Your task to perform on an android device: all mails in gmail Image 0: 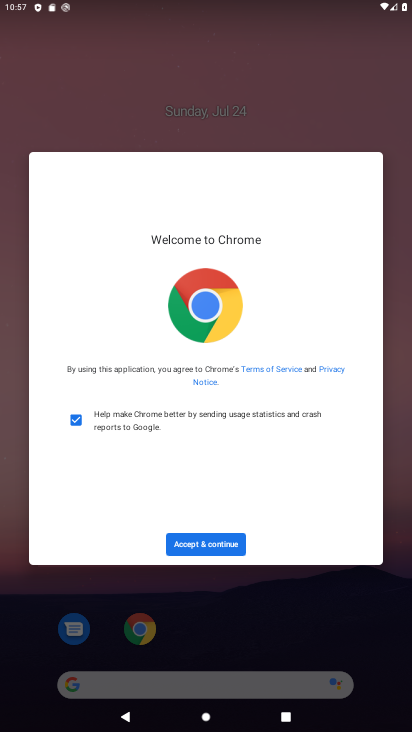
Step 0: press home button
Your task to perform on an android device: all mails in gmail Image 1: 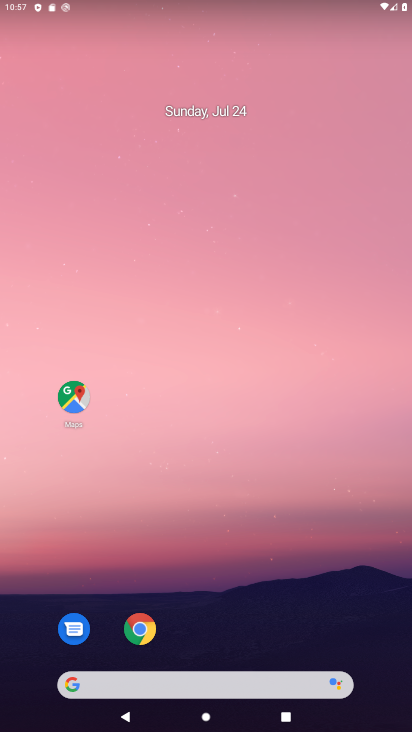
Step 1: drag from (211, 603) to (234, 94)
Your task to perform on an android device: all mails in gmail Image 2: 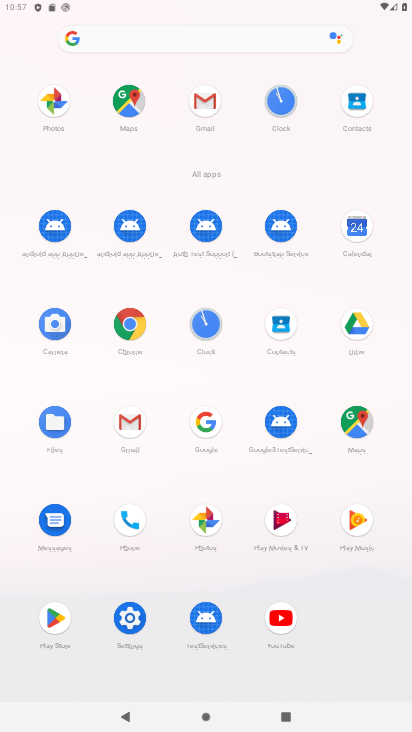
Step 2: click (205, 99)
Your task to perform on an android device: all mails in gmail Image 3: 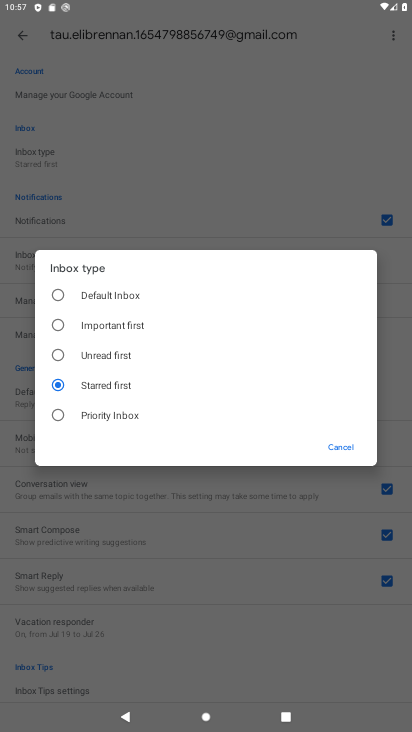
Step 3: press back button
Your task to perform on an android device: all mails in gmail Image 4: 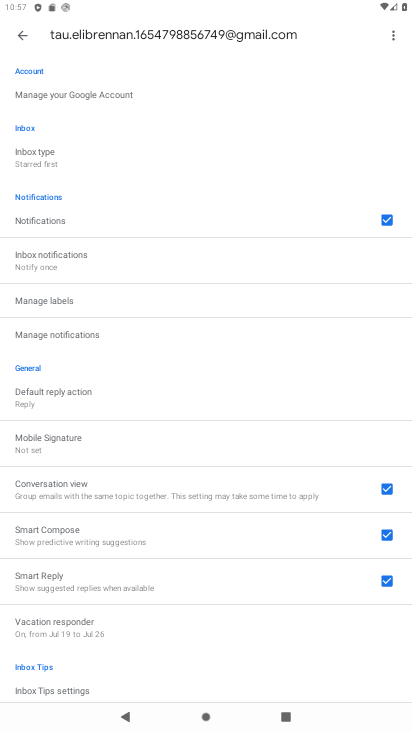
Step 4: press back button
Your task to perform on an android device: all mails in gmail Image 5: 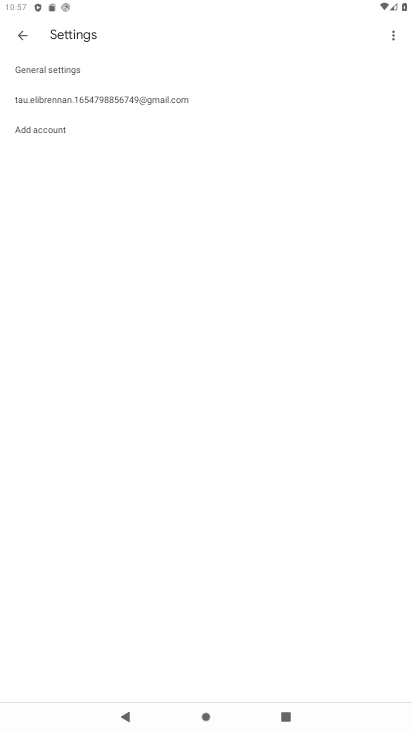
Step 5: click (35, 36)
Your task to perform on an android device: all mails in gmail Image 6: 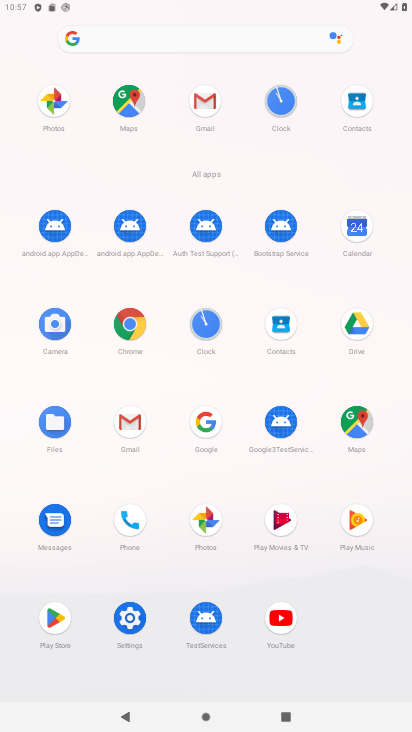
Step 6: click (201, 94)
Your task to perform on an android device: all mails in gmail Image 7: 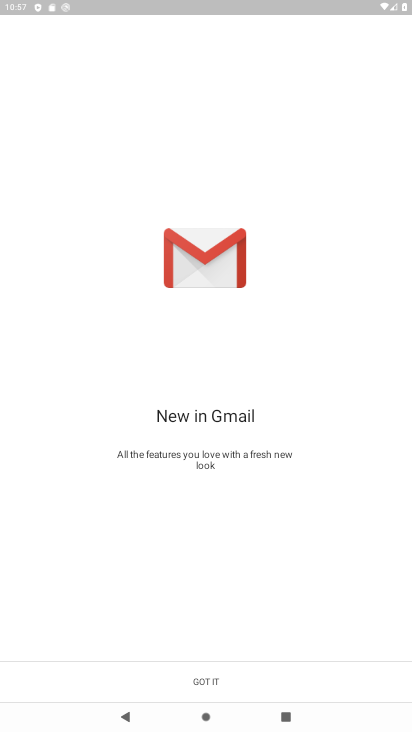
Step 7: click (233, 663)
Your task to perform on an android device: all mails in gmail Image 8: 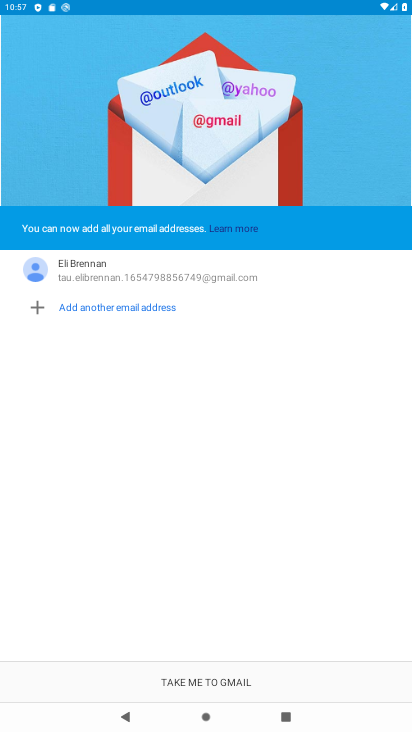
Step 8: click (127, 291)
Your task to perform on an android device: all mails in gmail Image 9: 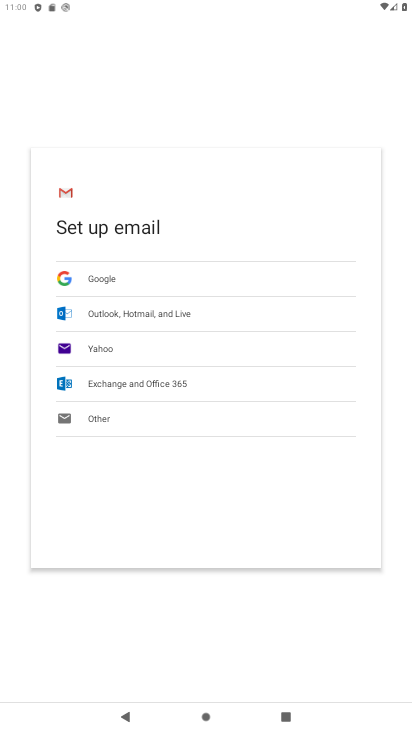
Step 9: press home button
Your task to perform on an android device: all mails in gmail Image 10: 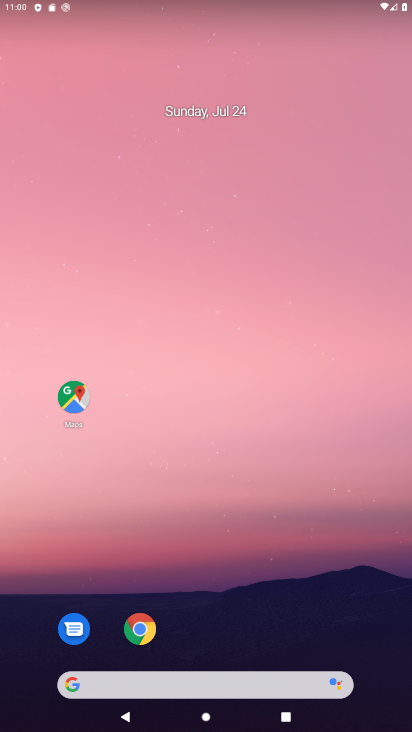
Step 10: drag from (199, 640) to (214, 24)
Your task to perform on an android device: all mails in gmail Image 11: 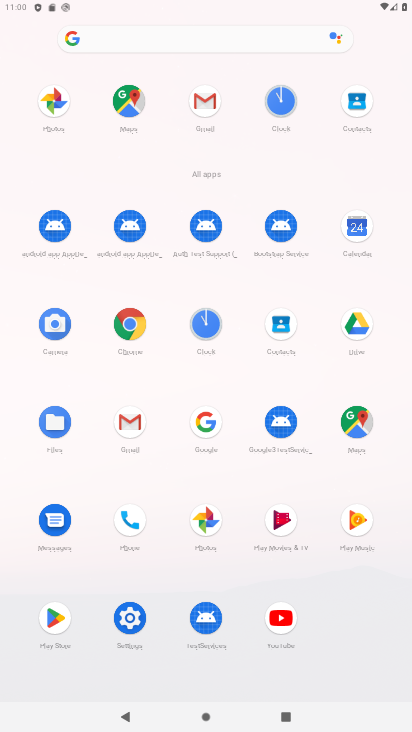
Step 11: click (206, 109)
Your task to perform on an android device: all mails in gmail Image 12: 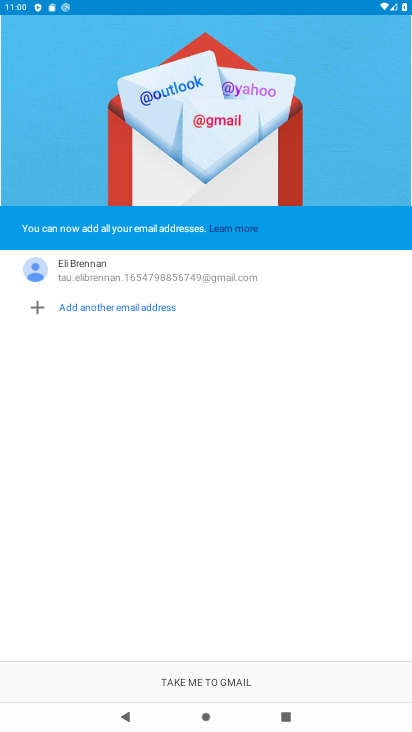
Step 12: click (263, 689)
Your task to perform on an android device: all mails in gmail Image 13: 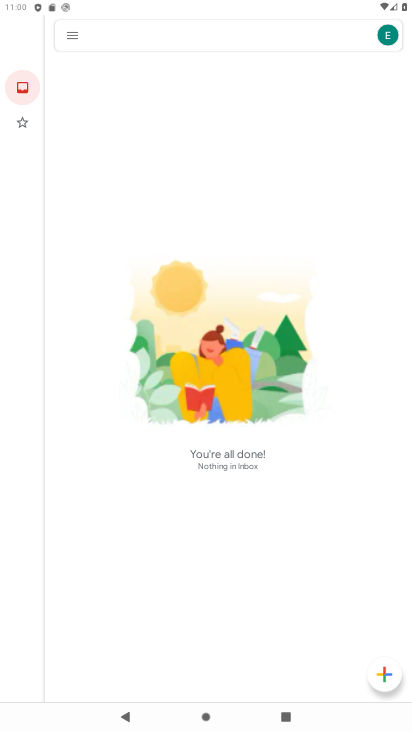
Step 13: click (68, 44)
Your task to perform on an android device: all mails in gmail Image 14: 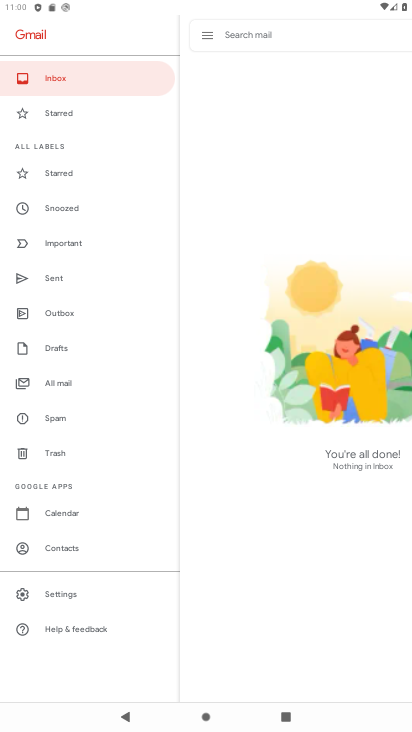
Step 14: click (70, 384)
Your task to perform on an android device: all mails in gmail Image 15: 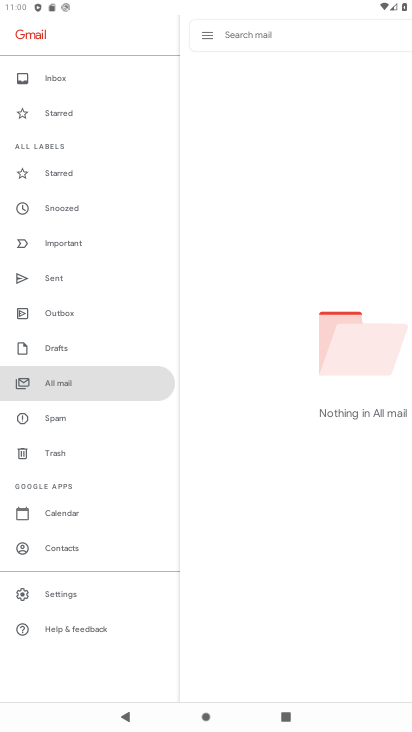
Step 15: task complete